Your task to perform on an android device: open app "Messenger Lite" (install if not already installed) and enter user name: "cataclysmic@outlook.com" and password: "victoriously" Image 0: 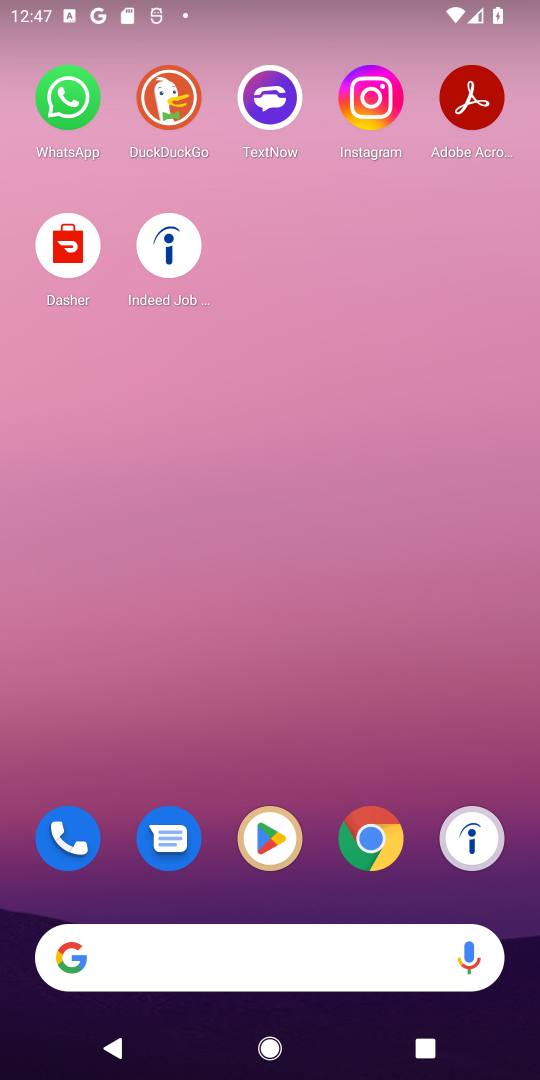
Step 0: click (260, 859)
Your task to perform on an android device: open app "Messenger Lite" (install if not already installed) and enter user name: "cataclysmic@outlook.com" and password: "victoriously" Image 1: 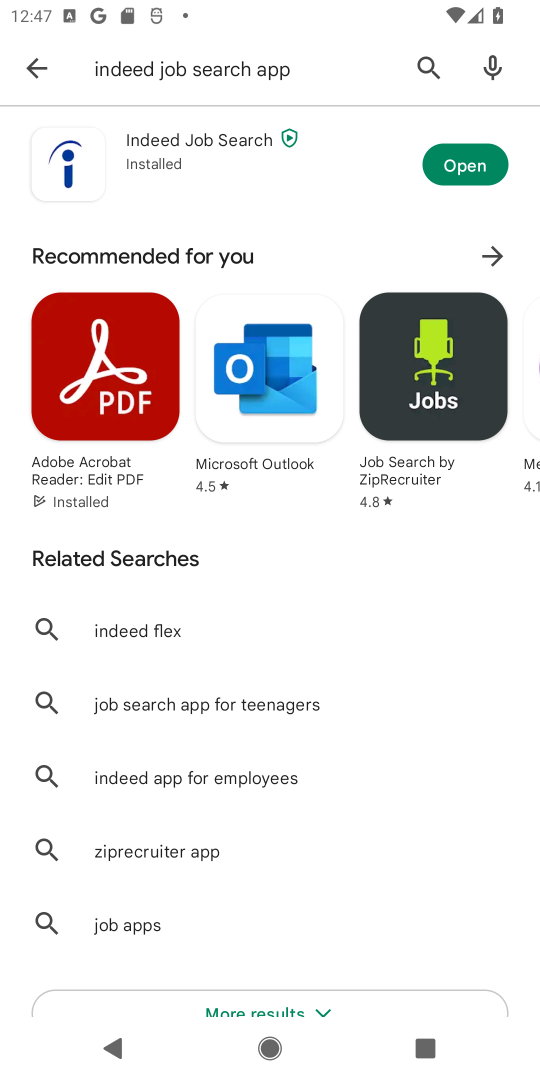
Step 1: click (424, 81)
Your task to perform on an android device: open app "Messenger Lite" (install if not already installed) and enter user name: "cataclysmic@outlook.com" and password: "victoriously" Image 2: 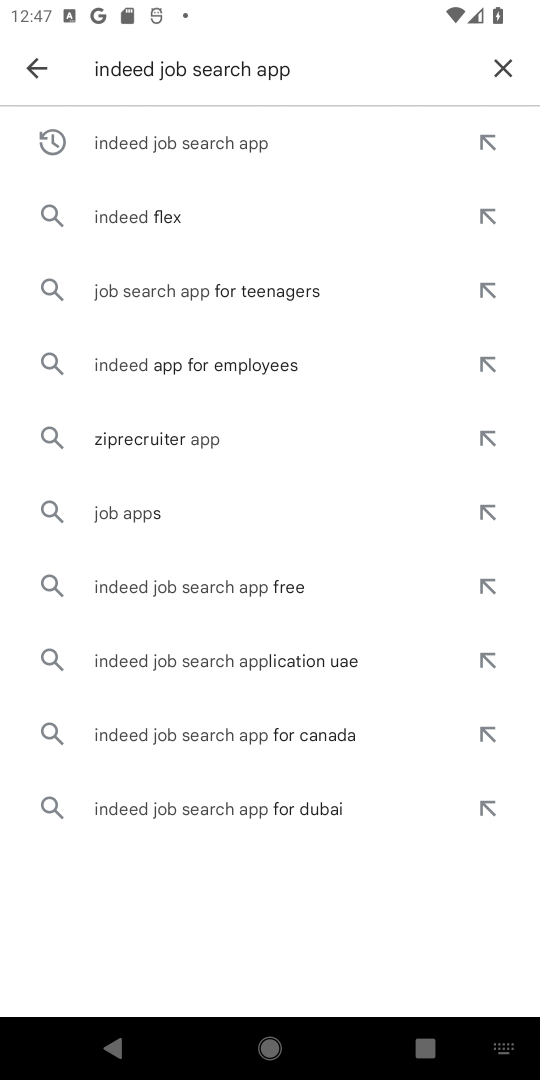
Step 2: click (500, 78)
Your task to perform on an android device: open app "Messenger Lite" (install if not already installed) and enter user name: "cataclysmic@outlook.com" and password: "victoriously" Image 3: 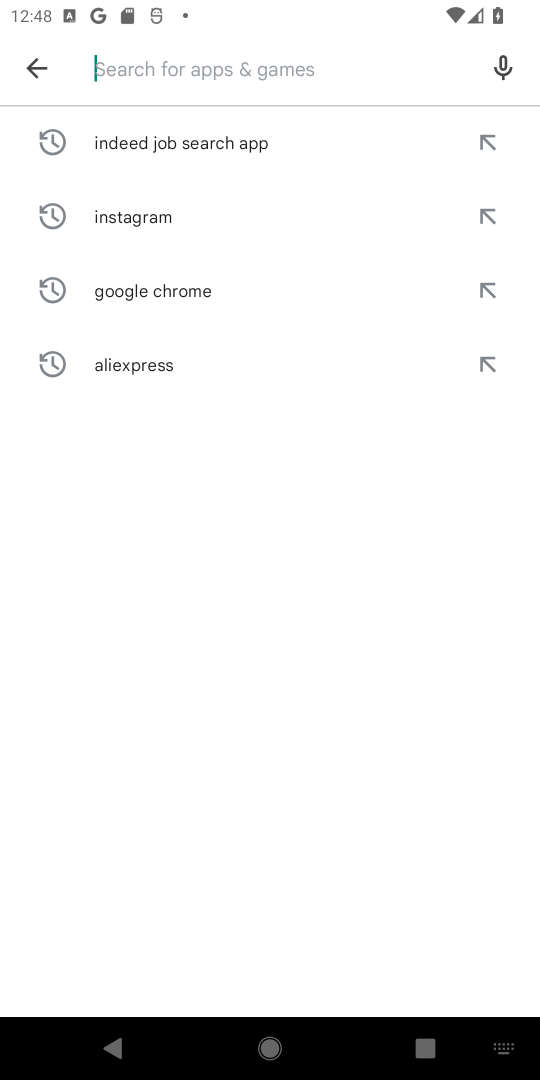
Step 3: type "Messenger Lite"
Your task to perform on an android device: open app "Messenger Lite" (install if not already installed) and enter user name: "cataclysmic@outlook.com" and password: "victoriously" Image 4: 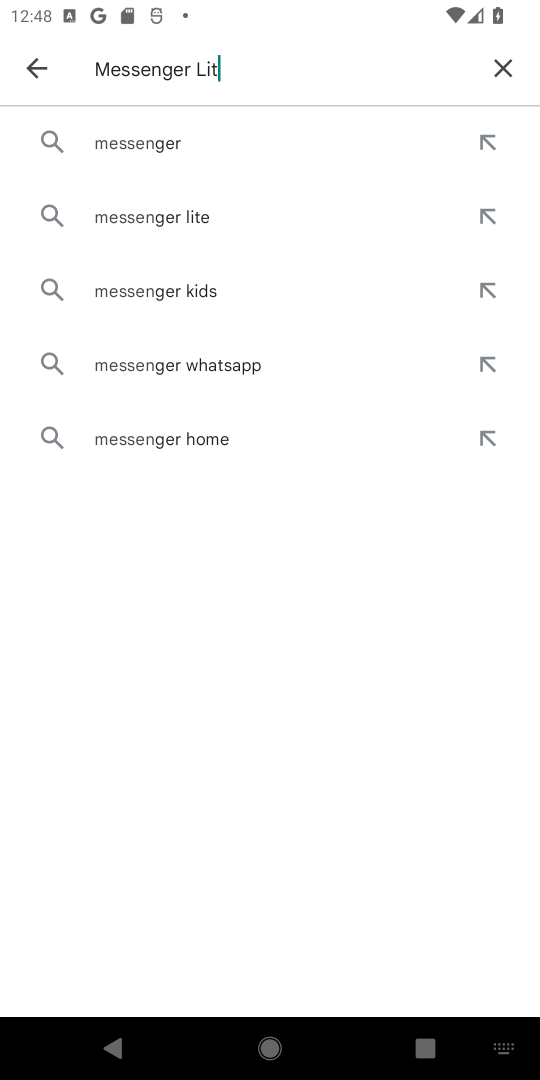
Step 4: type ""
Your task to perform on an android device: open app "Messenger Lite" (install if not already installed) and enter user name: "cataclysmic@outlook.com" and password: "victoriously" Image 5: 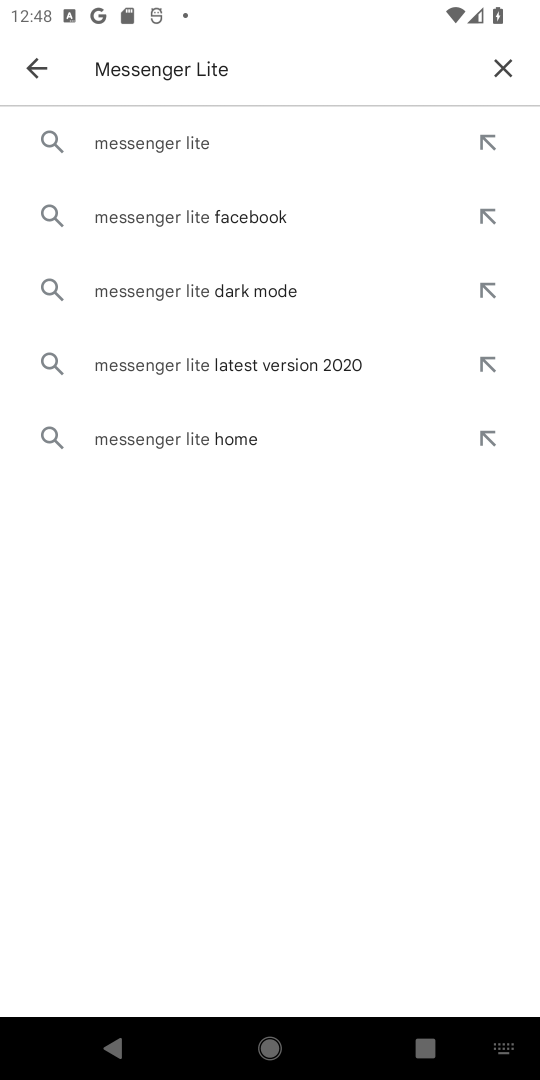
Step 5: click (195, 148)
Your task to perform on an android device: open app "Messenger Lite" (install if not already installed) and enter user name: "cataclysmic@outlook.com" and password: "victoriously" Image 6: 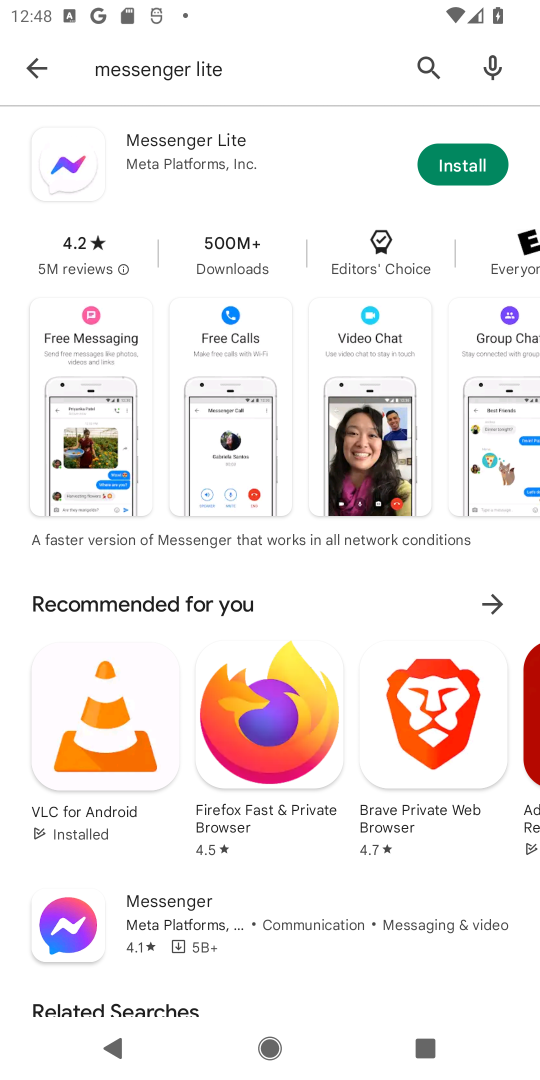
Step 6: click (485, 149)
Your task to perform on an android device: open app "Messenger Lite" (install if not already installed) and enter user name: "cataclysmic@outlook.com" and password: "victoriously" Image 7: 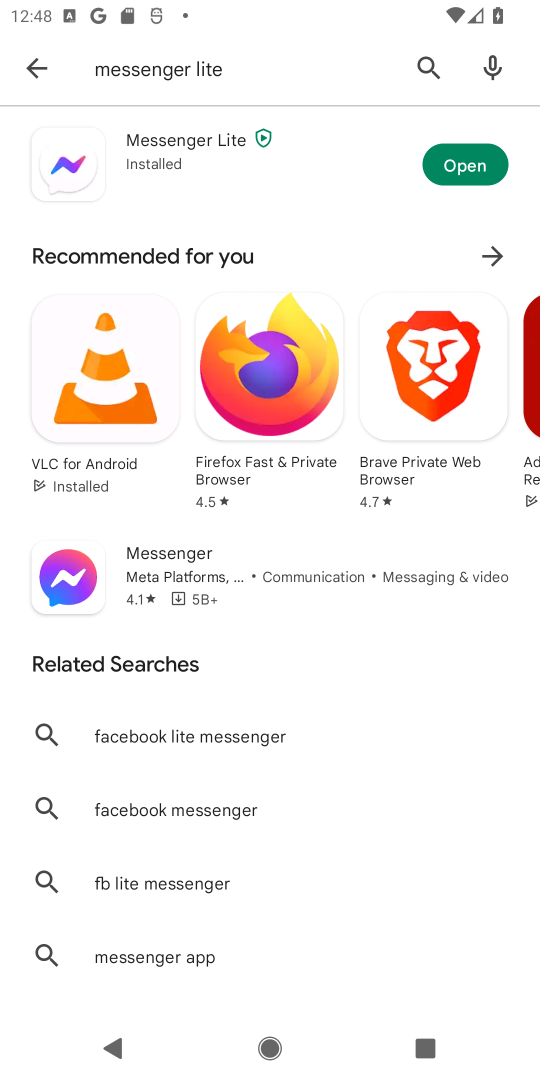
Step 7: click (481, 155)
Your task to perform on an android device: open app "Messenger Lite" (install if not already installed) and enter user name: "cataclysmic@outlook.com" and password: "victoriously" Image 8: 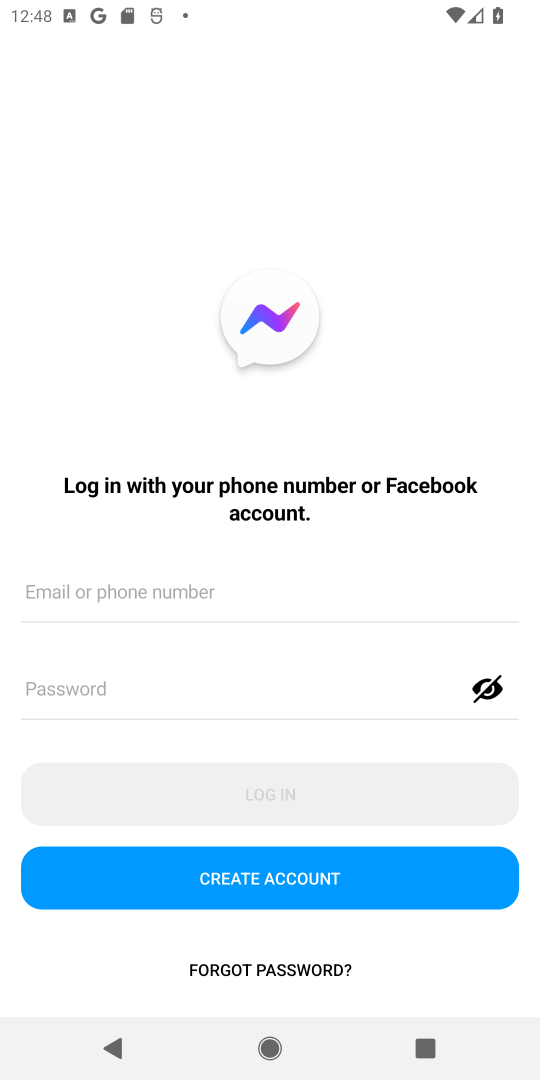
Step 8: task complete